Your task to perform on an android device: What's on my calendar tomorrow? Image 0: 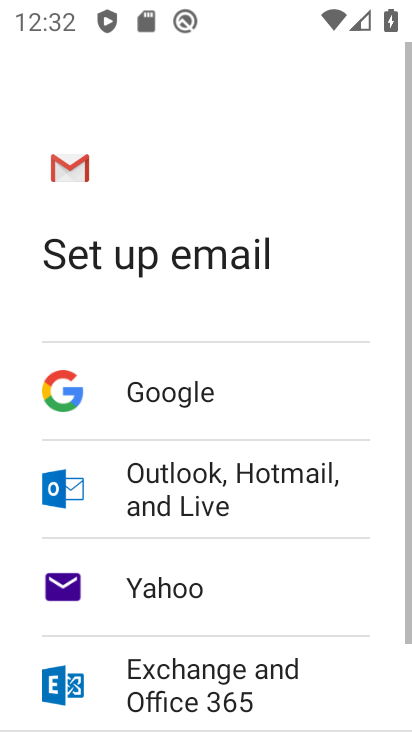
Step 0: press back button
Your task to perform on an android device: What's on my calendar tomorrow? Image 1: 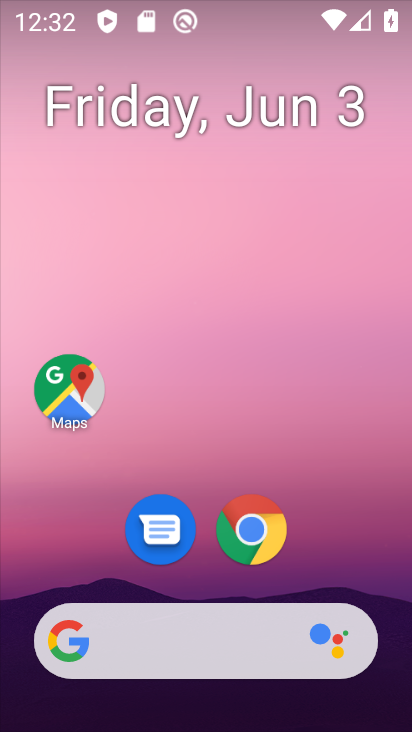
Step 1: drag from (329, 561) to (259, 0)
Your task to perform on an android device: What's on my calendar tomorrow? Image 2: 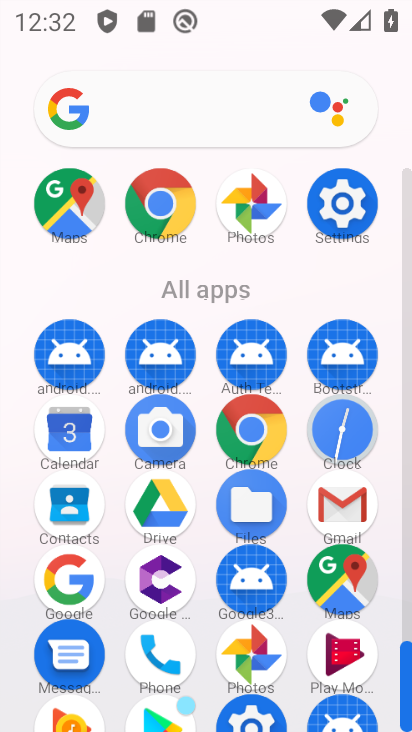
Step 2: click (60, 433)
Your task to perform on an android device: What's on my calendar tomorrow? Image 3: 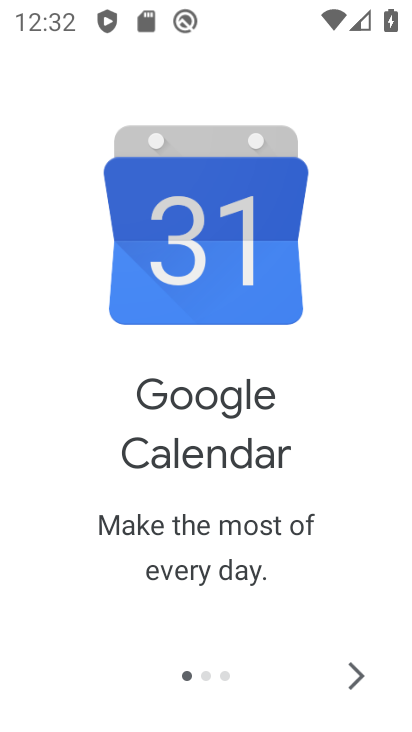
Step 3: click (342, 677)
Your task to perform on an android device: What's on my calendar tomorrow? Image 4: 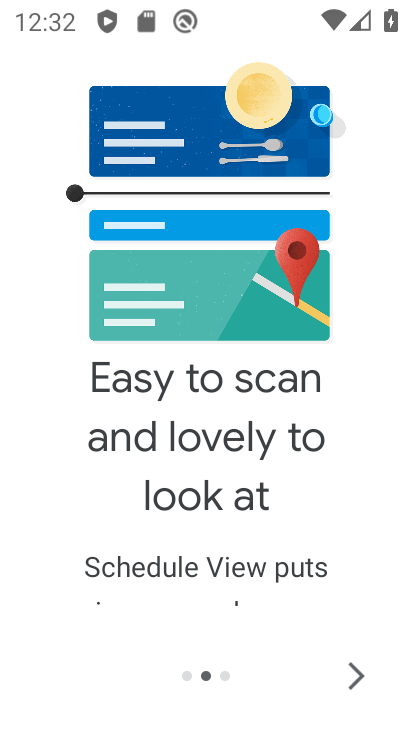
Step 4: click (346, 654)
Your task to perform on an android device: What's on my calendar tomorrow? Image 5: 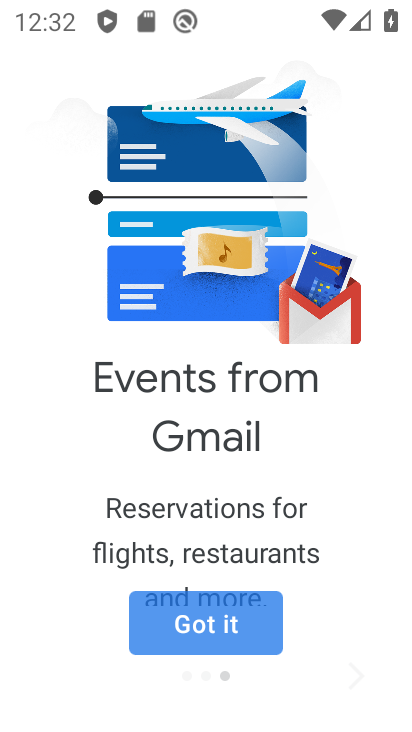
Step 5: click (348, 683)
Your task to perform on an android device: What's on my calendar tomorrow? Image 6: 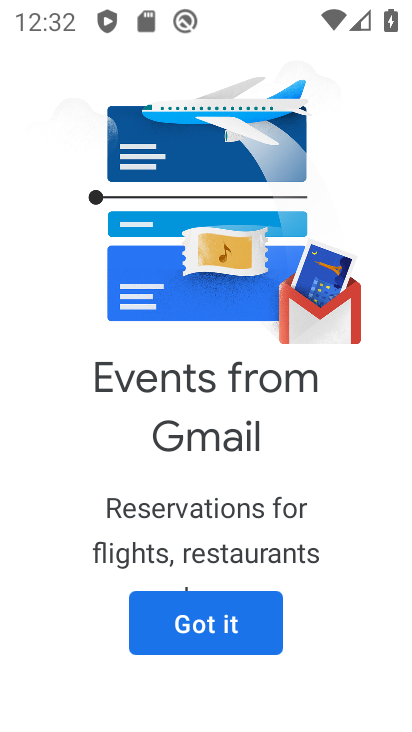
Step 6: click (226, 633)
Your task to perform on an android device: What's on my calendar tomorrow? Image 7: 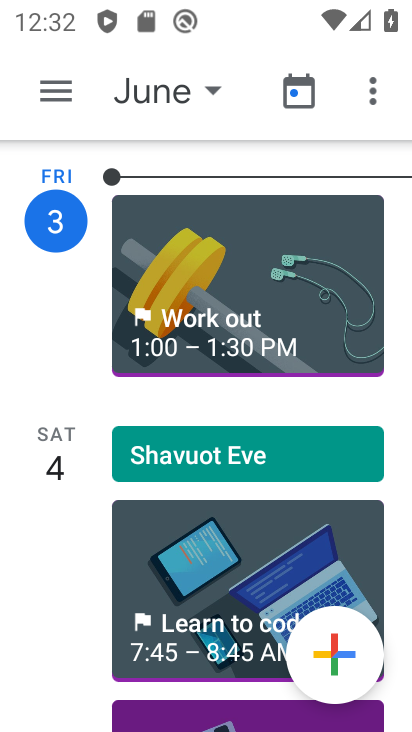
Step 7: task complete